Your task to perform on an android device: toggle notifications settings in the gmail app Image 0: 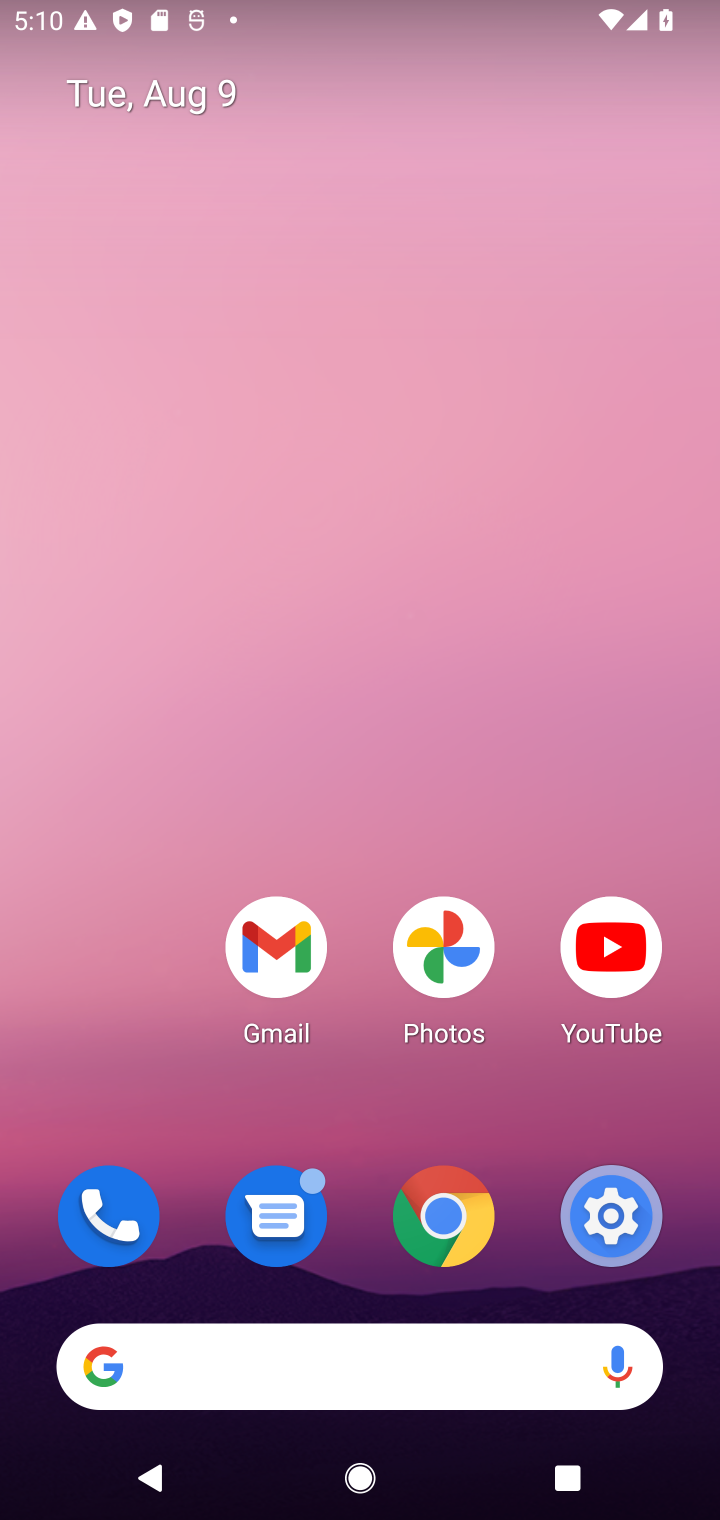
Step 0: drag from (374, 1324) to (232, 696)
Your task to perform on an android device: toggle notifications settings in the gmail app Image 1: 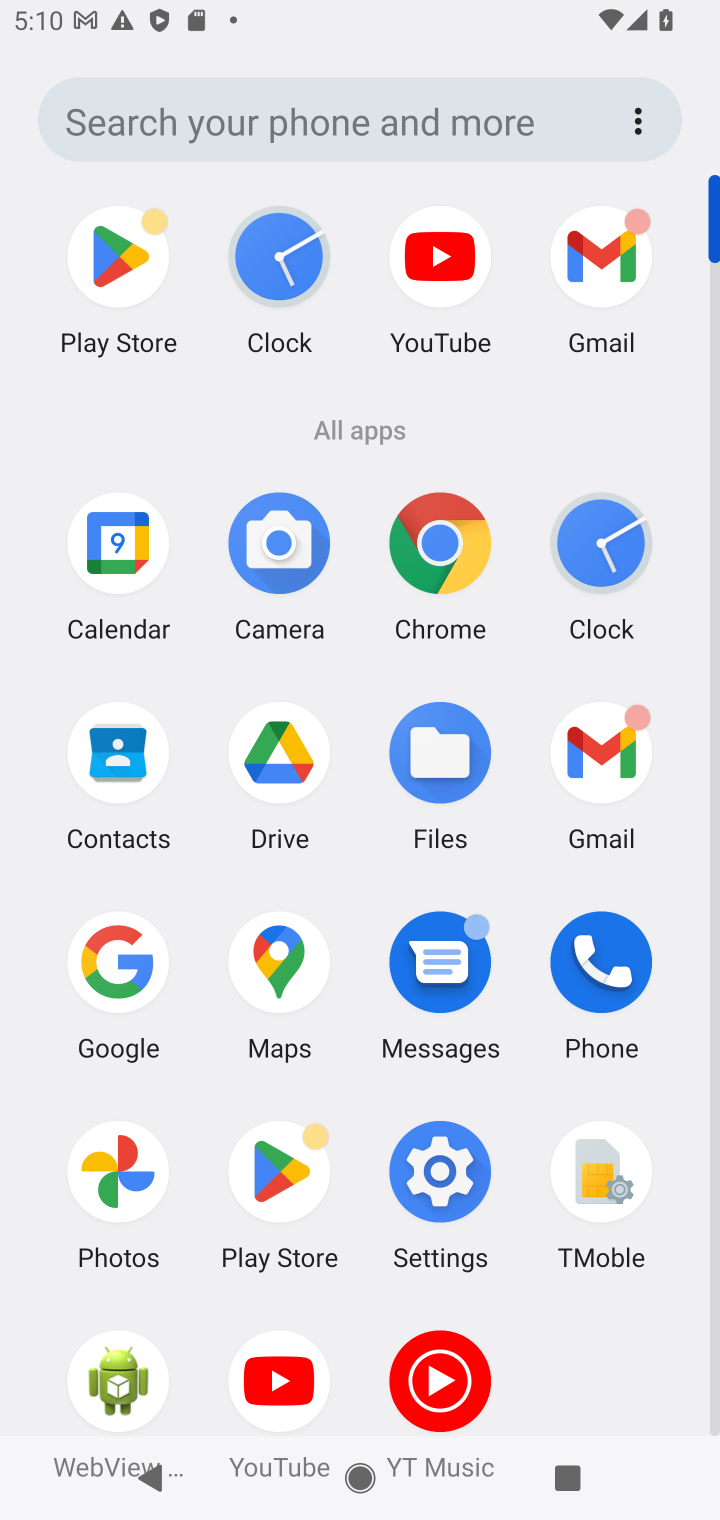
Step 1: click (606, 771)
Your task to perform on an android device: toggle notifications settings in the gmail app Image 2: 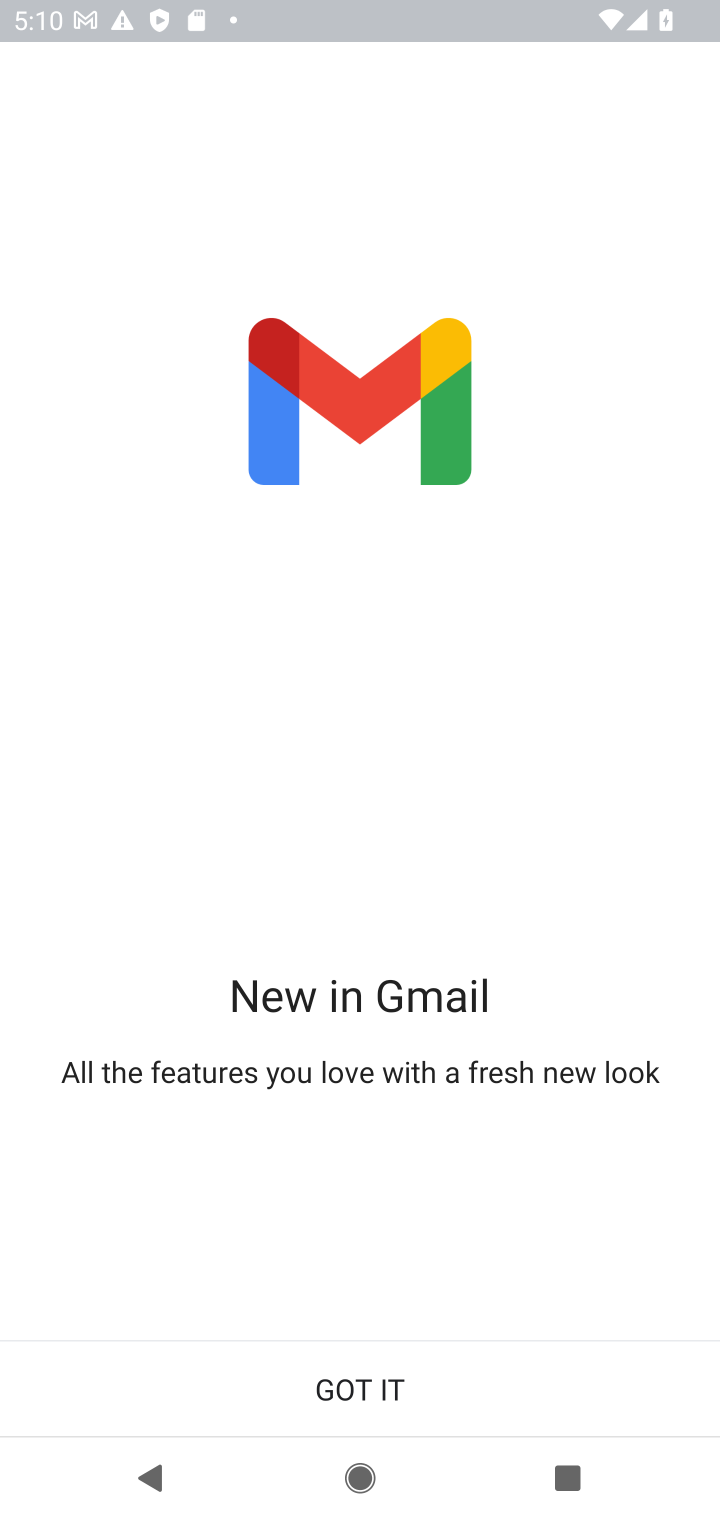
Step 2: click (389, 1386)
Your task to perform on an android device: toggle notifications settings in the gmail app Image 3: 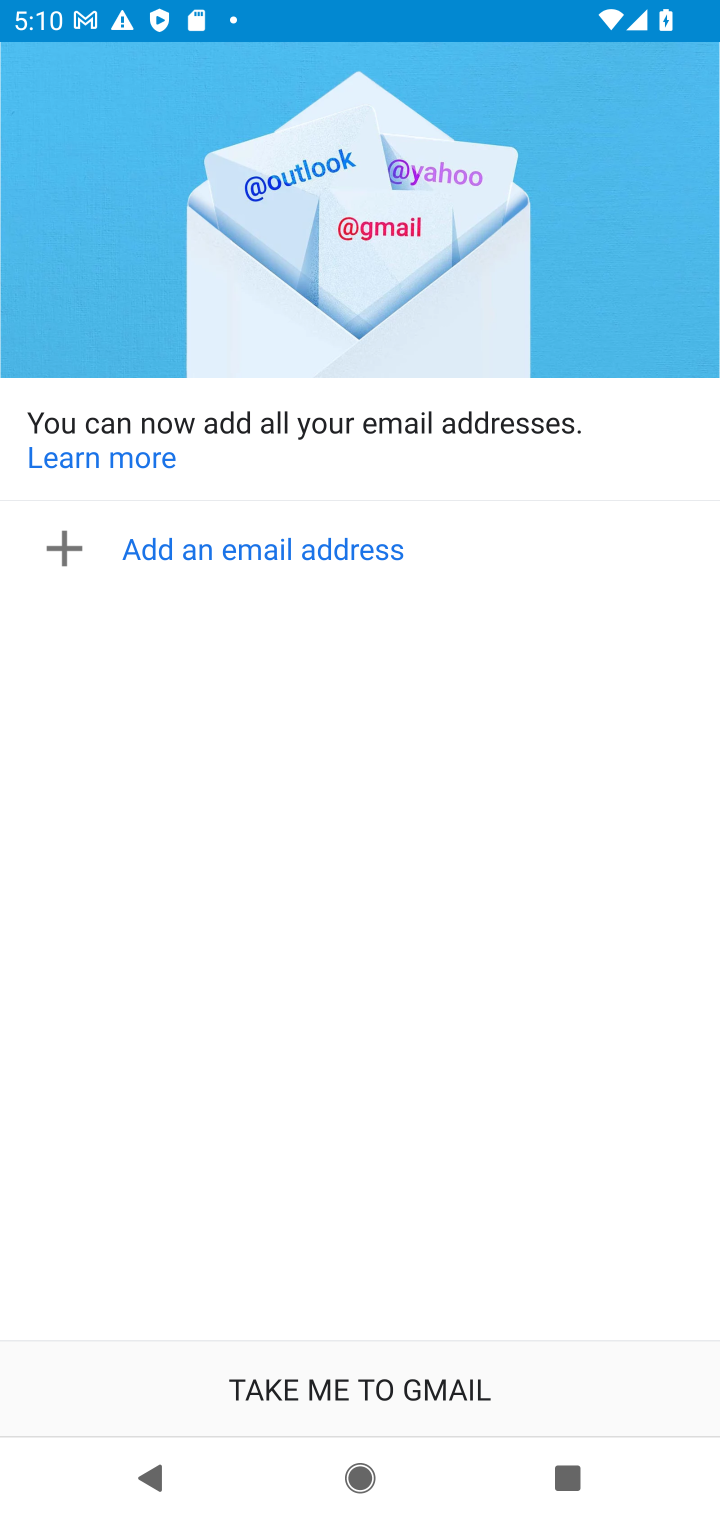
Step 3: click (385, 1391)
Your task to perform on an android device: toggle notifications settings in the gmail app Image 4: 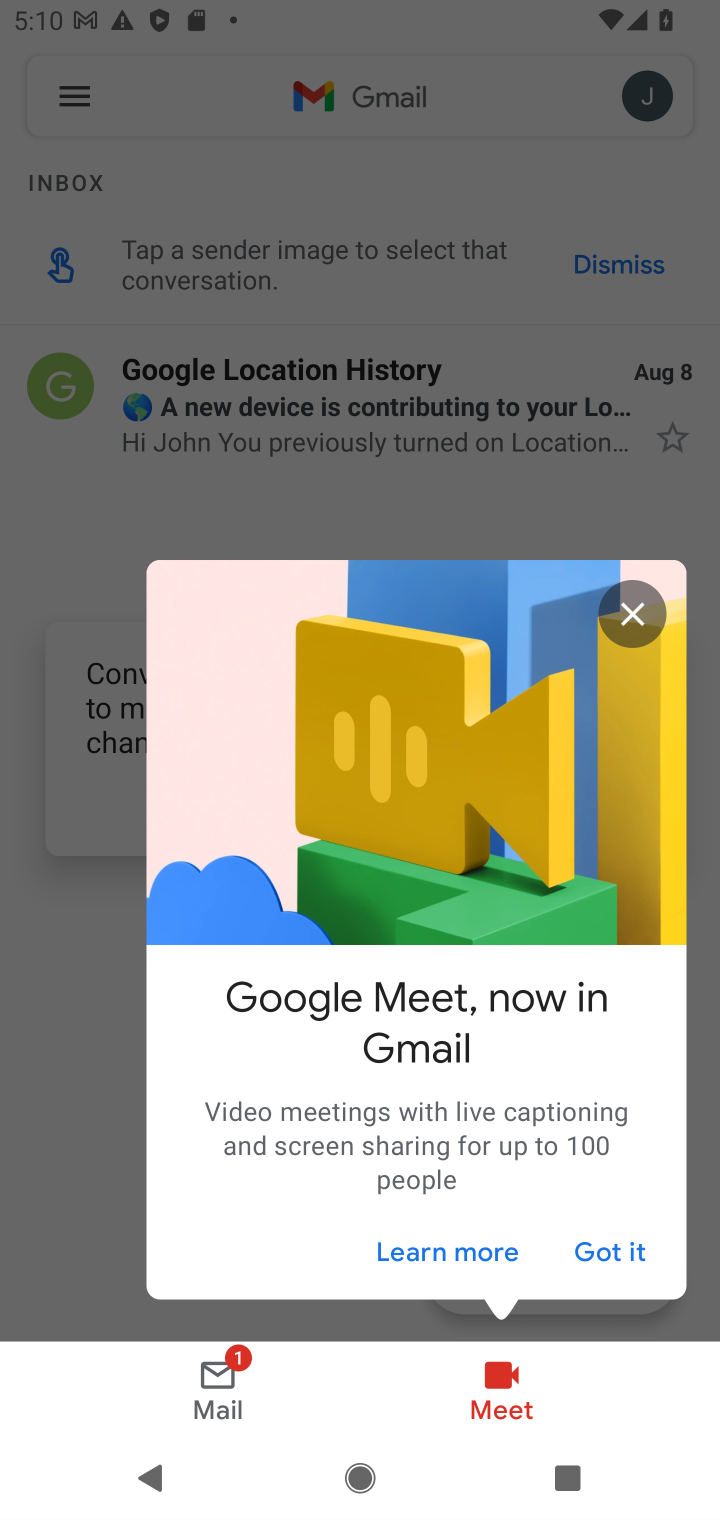
Step 4: click (584, 813)
Your task to perform on an android device: toggle notifications settings in the gmail app Image 5: 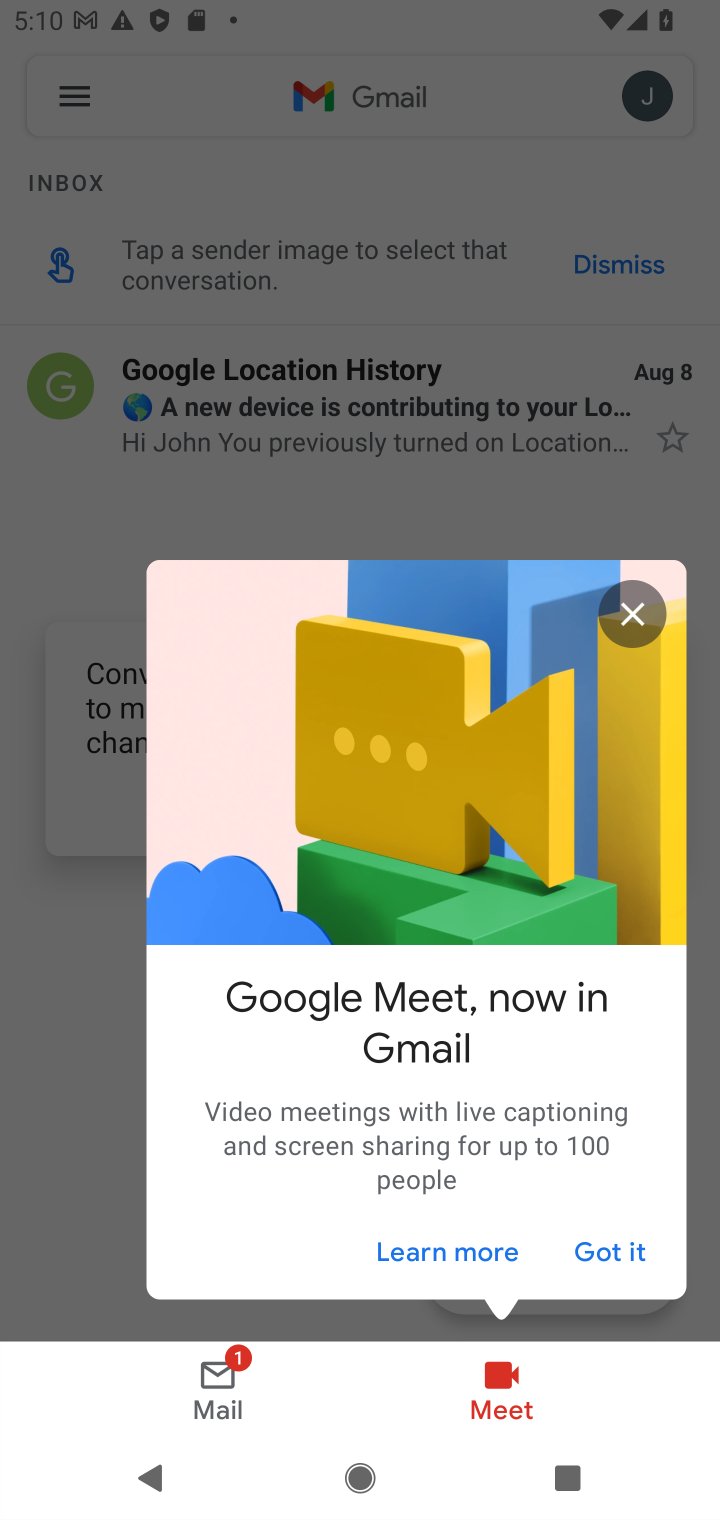
Step 5: click (635, 602)
Your task to perform on an android device: toggle notifications settings in the gmail app Image 6: 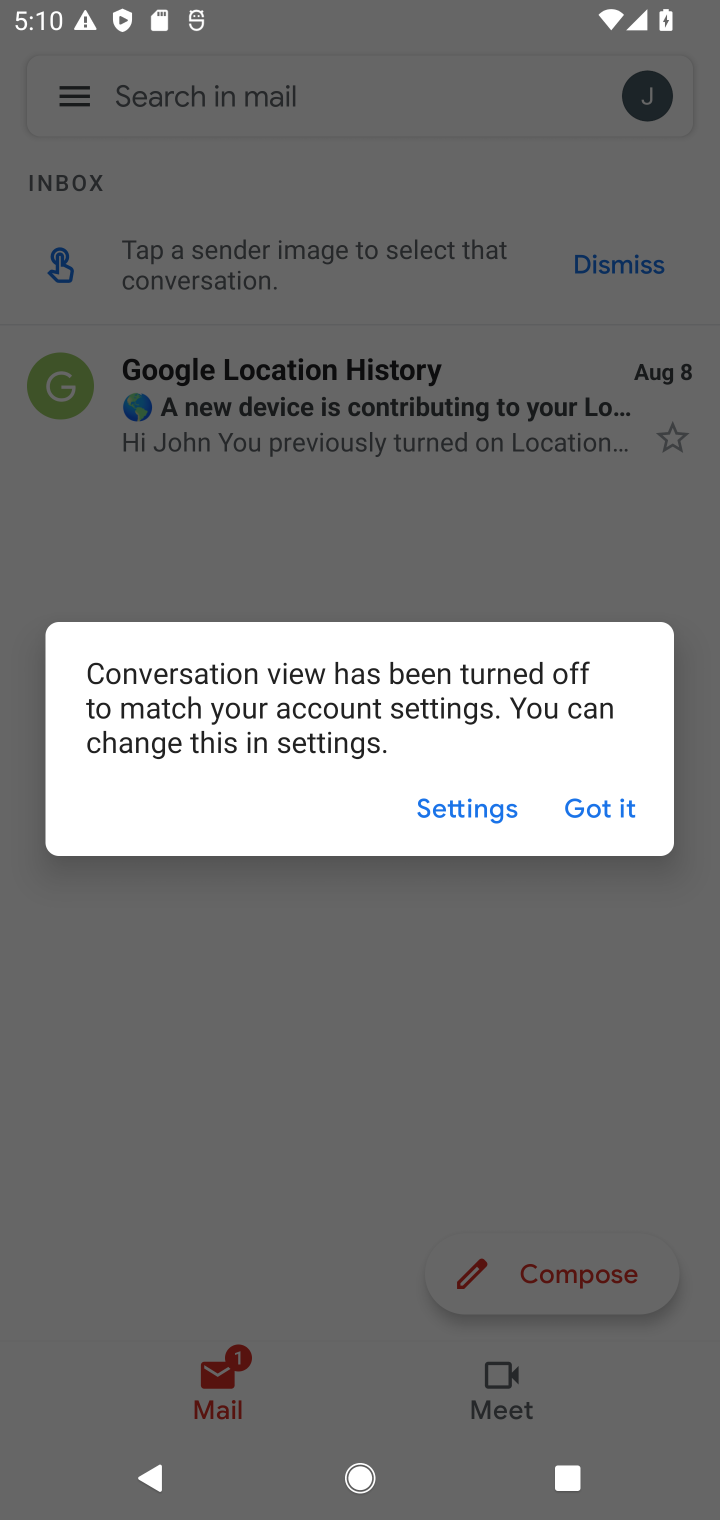
Step 6: click (590, 814)
Your task to perform on an android device: toggle notifications settings in the gmail app Image 7: 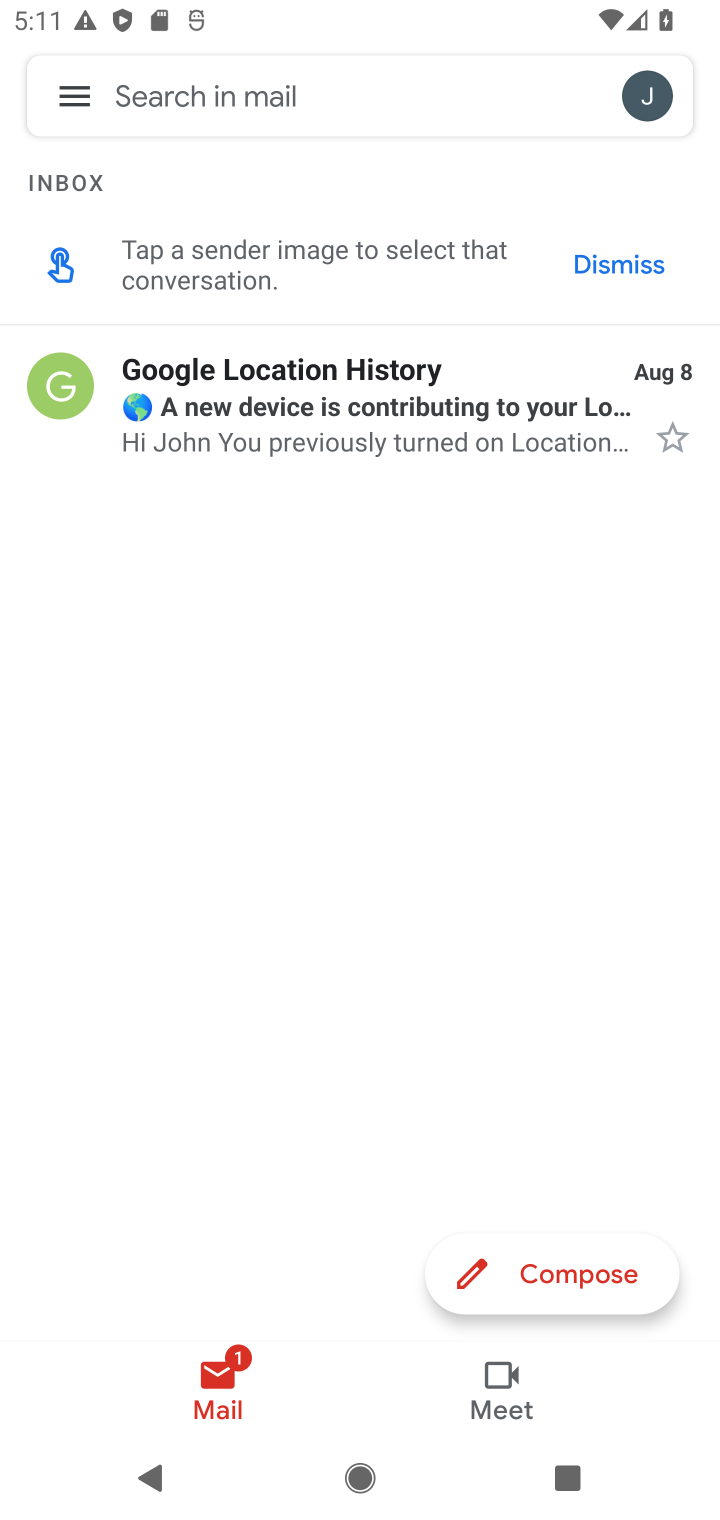
Step 7: click (62, 106)
Your task to perform on an android device: toggle notifications settings in the gmail app Image 8: 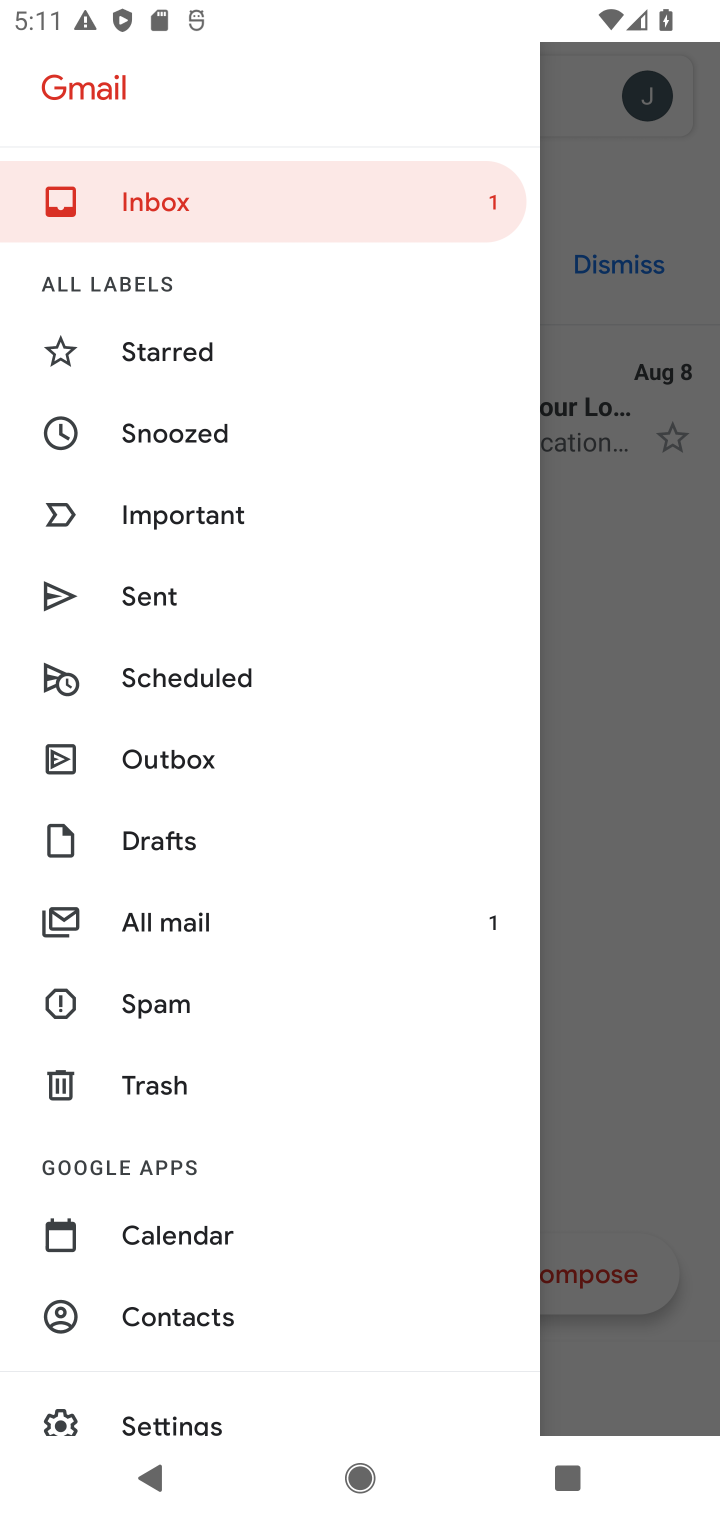
Step 8: click (177, 926)
Your task to perform on an android device: toggle notifications settings in the gmail app Image 9: 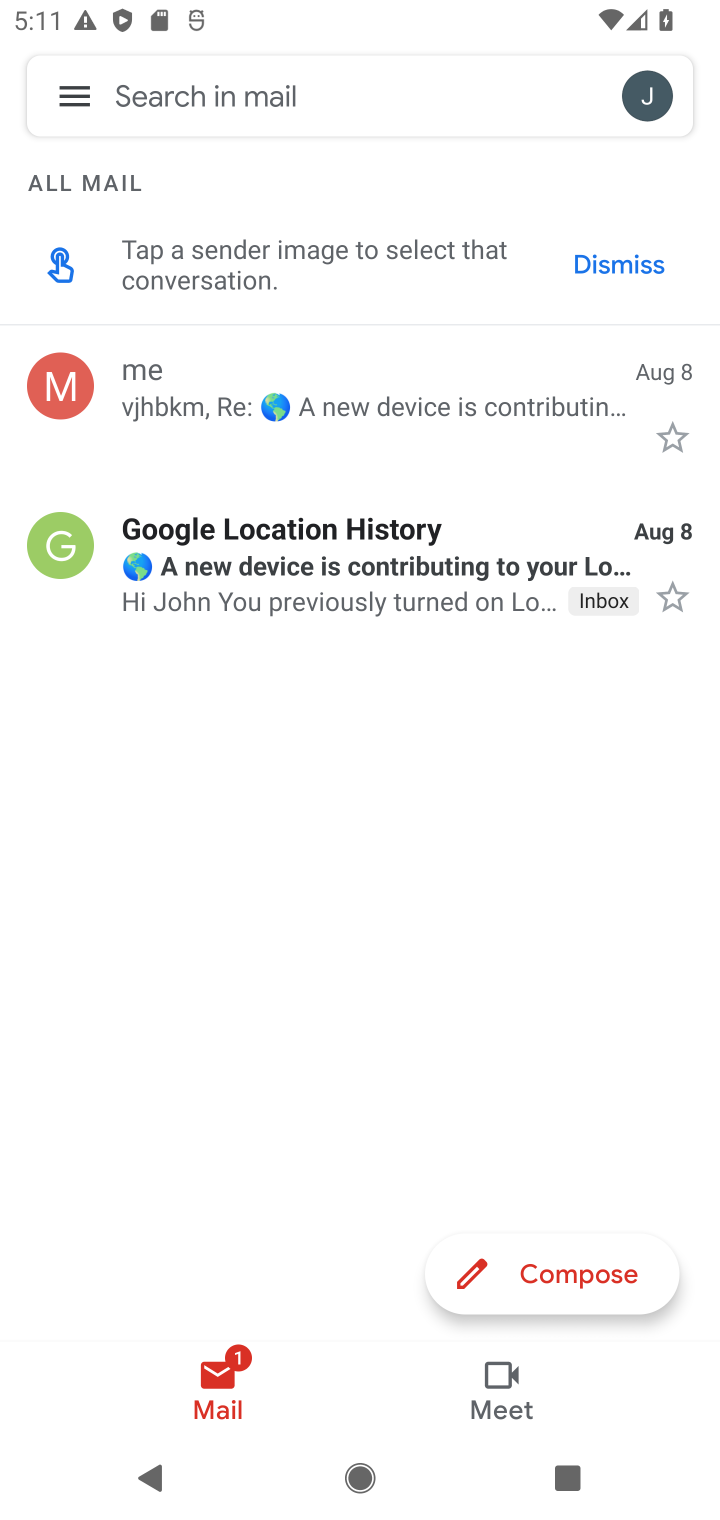
Step 9: click (99, 89)
Your task to perform on an android device: toggle notifications settings in the gmail app Image 10: 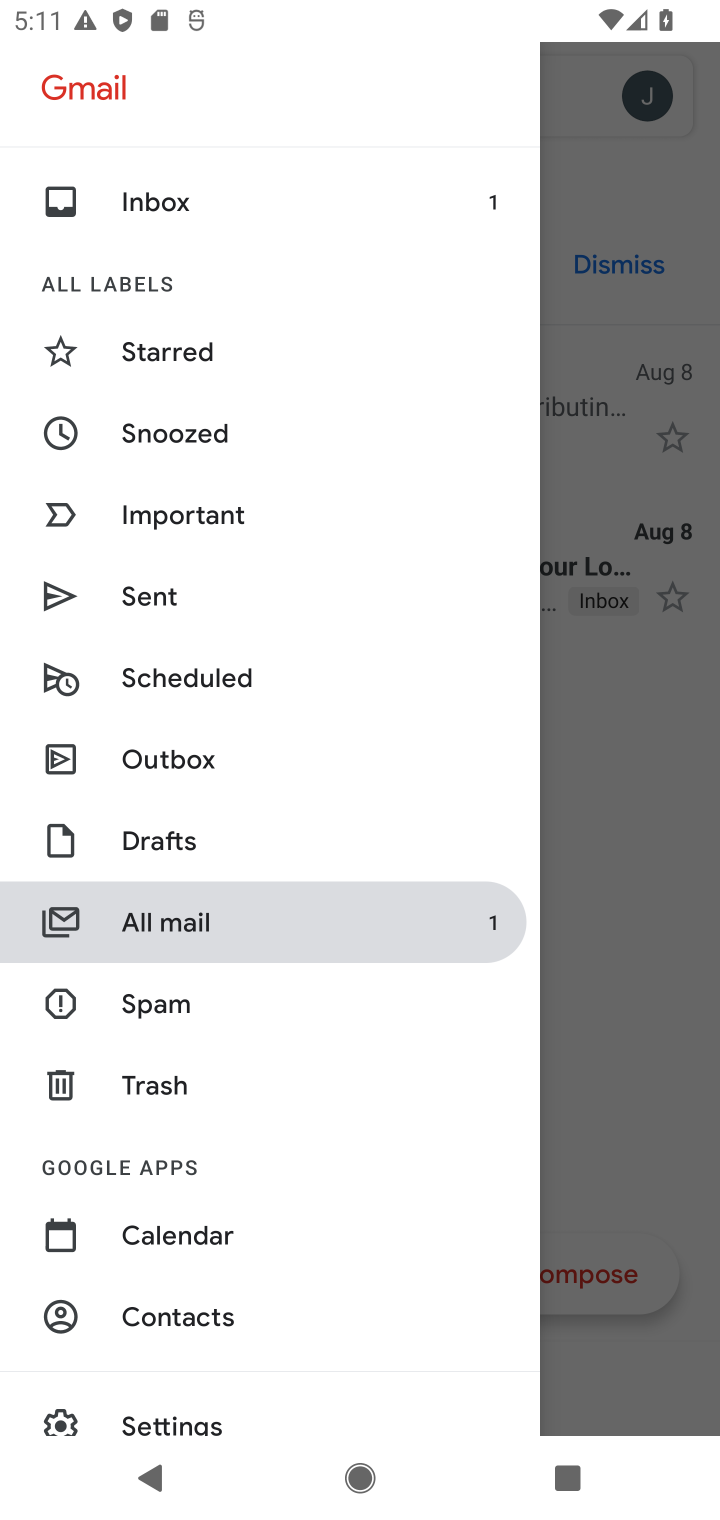
Step 10: click (171, 1431)
Your task to perform on an android device: toggle notifications settings in the gmail app Image 11: 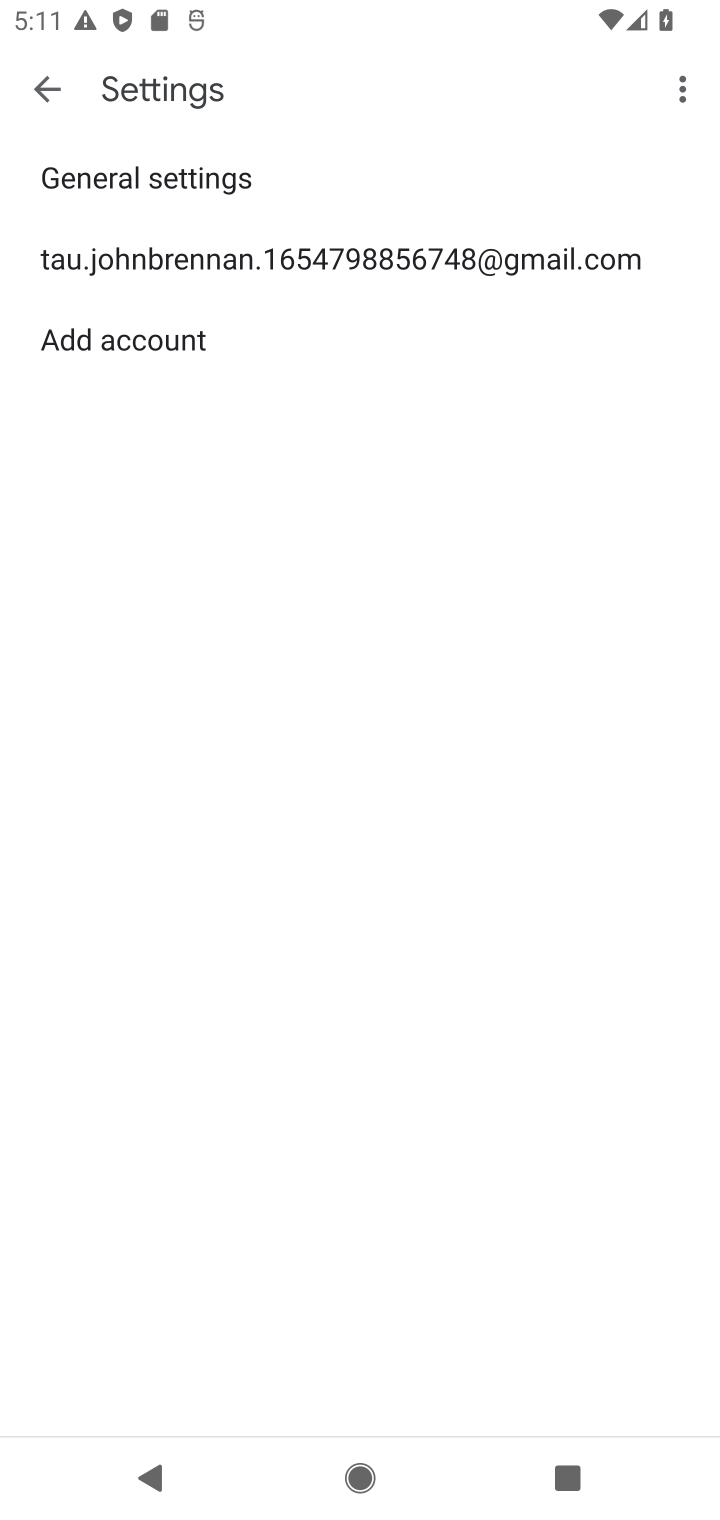
Step 11: click (175, 268)
Your task to perform on an android device: toggle notifications settings in the gmail app Image 12: 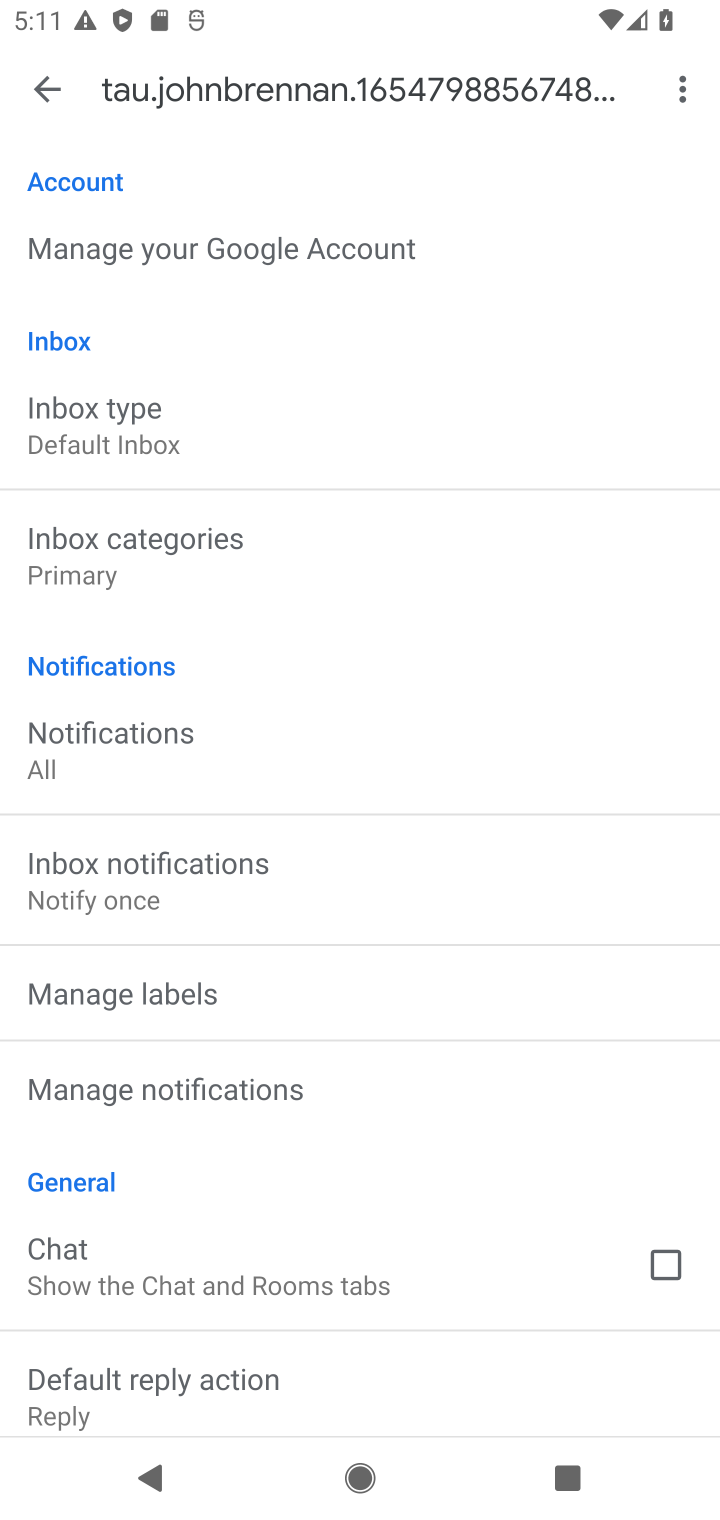
Step 12: drag from (152, 1382) to (152, 619)
Your task to perform on an android device: toggle notifications settings in the gmail app Image 13: 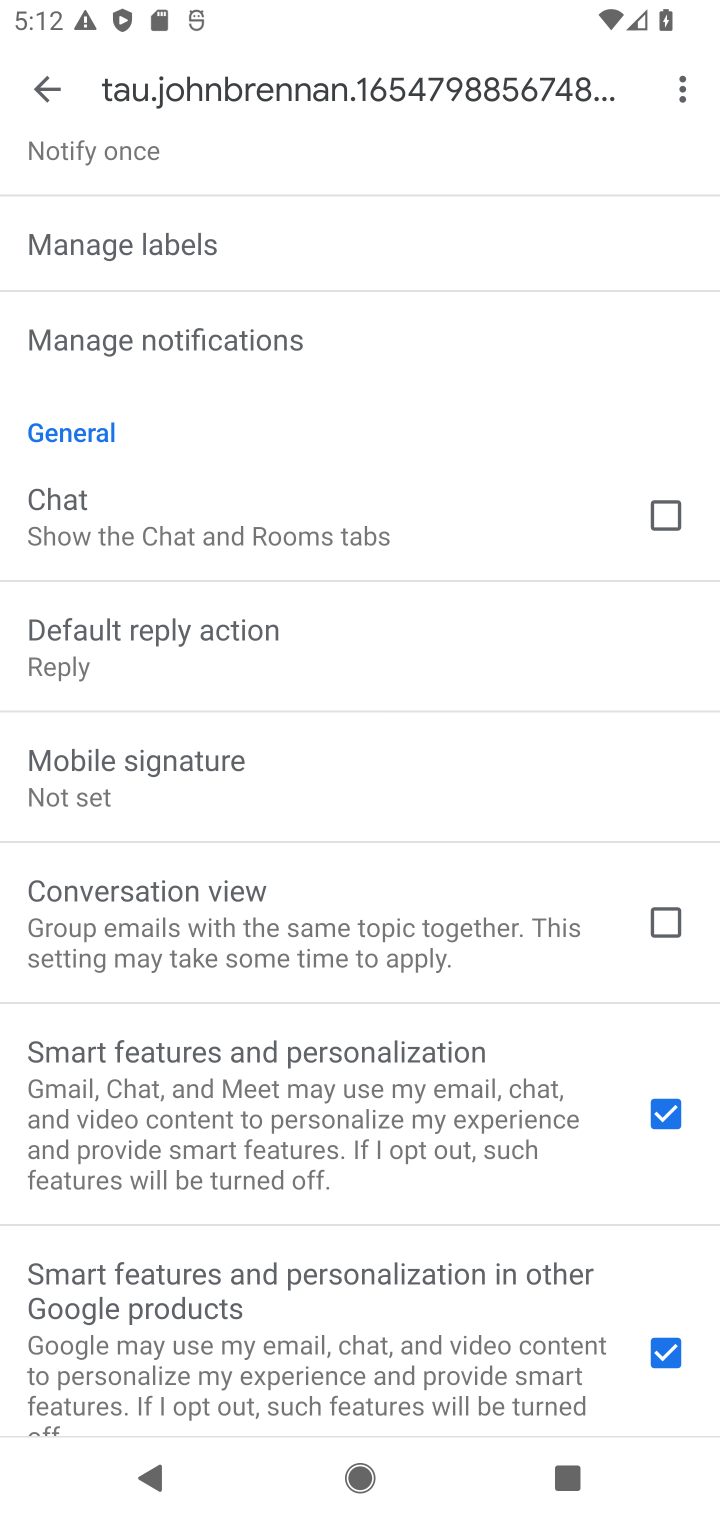
Step 13: drag from (200, 1349) to (200, 580)
Your task to perform on an android device: toggle notifications settings in the gmail app Image 14: 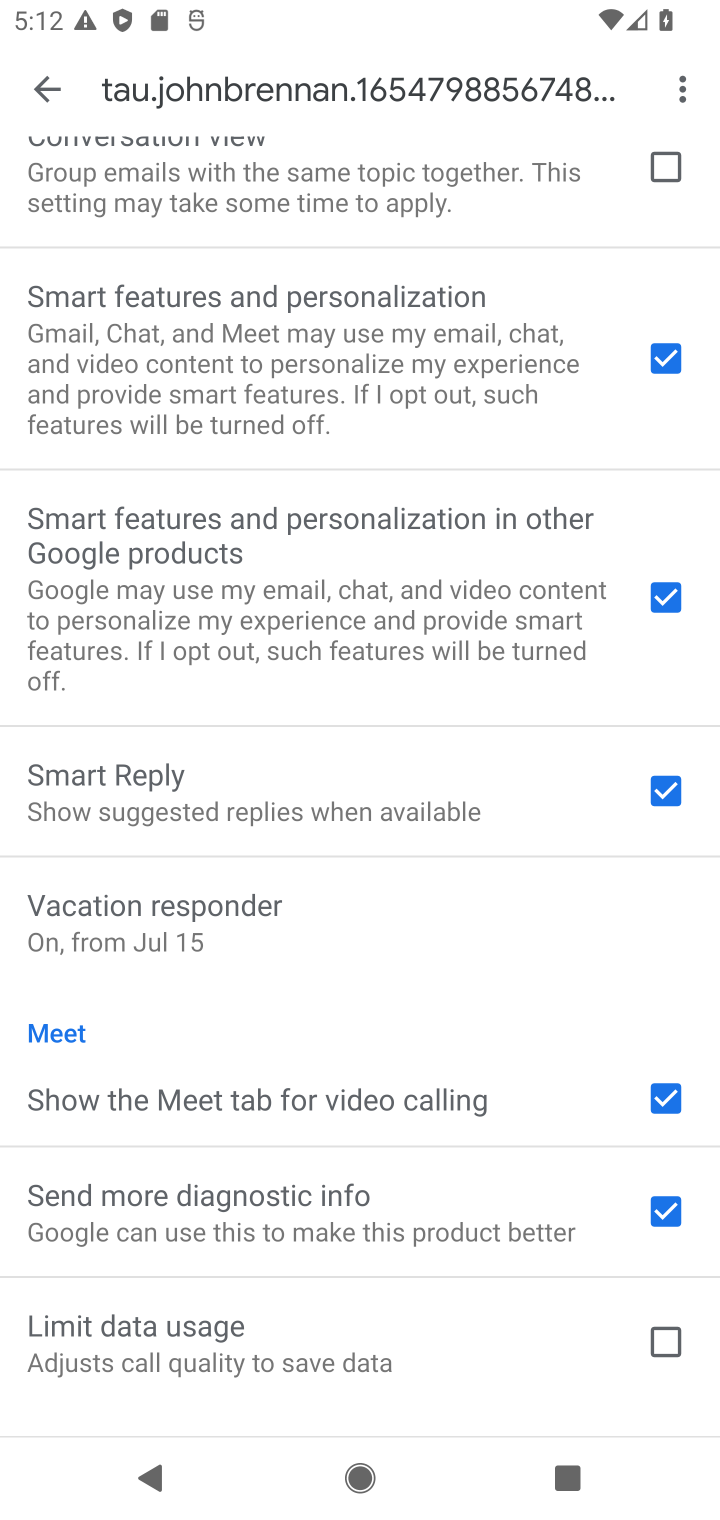
Step 14: drag from (188, 847) to (188, 552)
Your task to perform on an android device: toggle notifications settings in the gmail app Image 15: 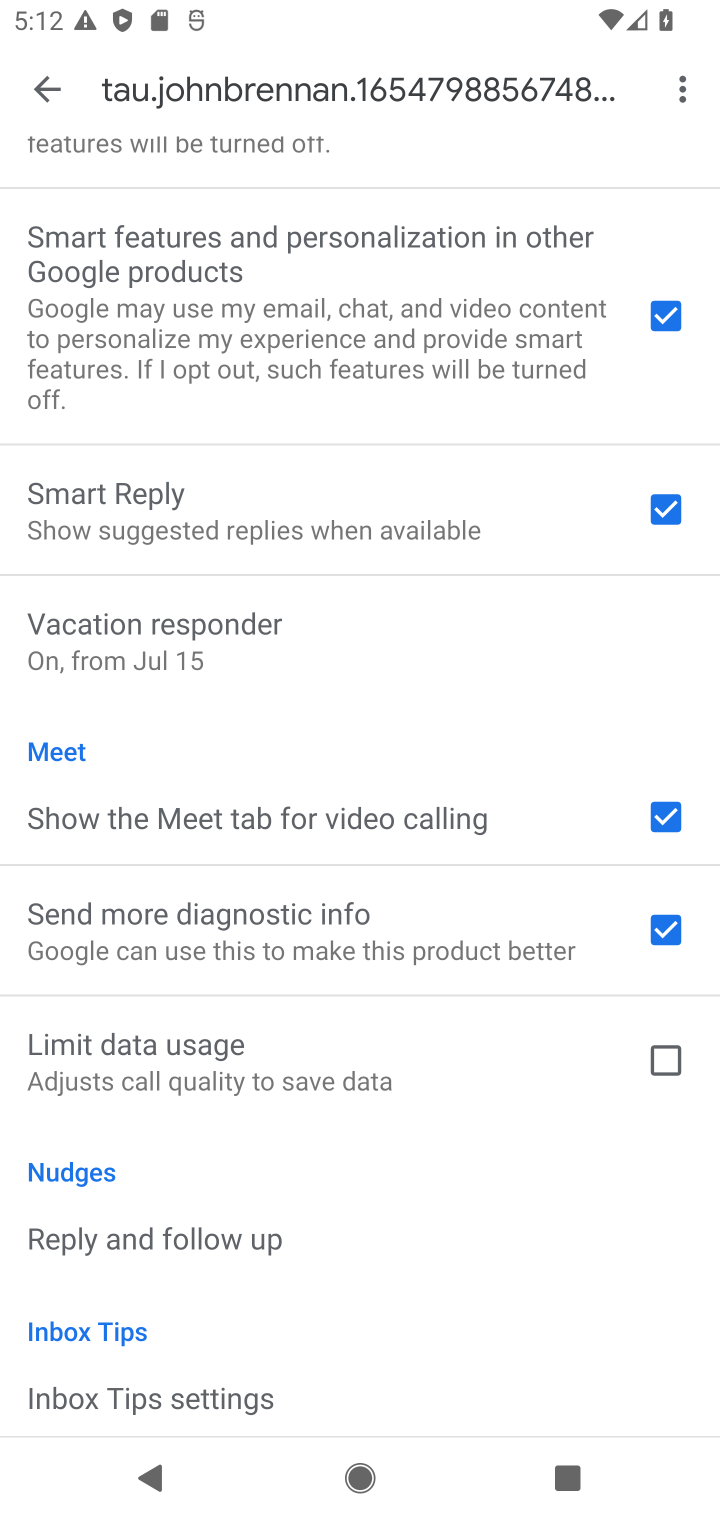
Step 15: drag from (189, 224) to (177, 1220)
Your task to perform on an android device: toggle notifications settings in the gmail app Image 16: 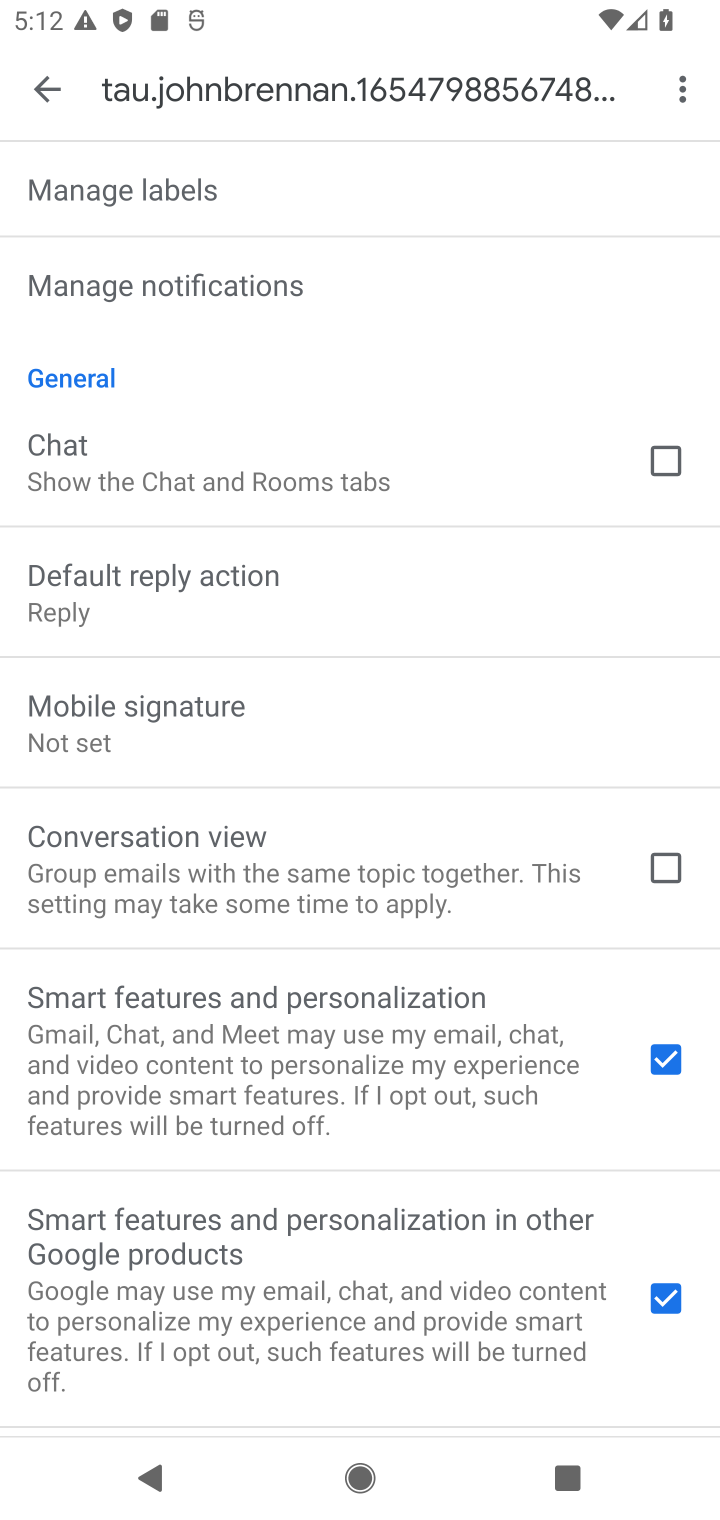
Step 16: drag from (93, 319) to (110, 1110)
Your task to perform on an android device: toggle notifications settings in the gmail app Image 17: 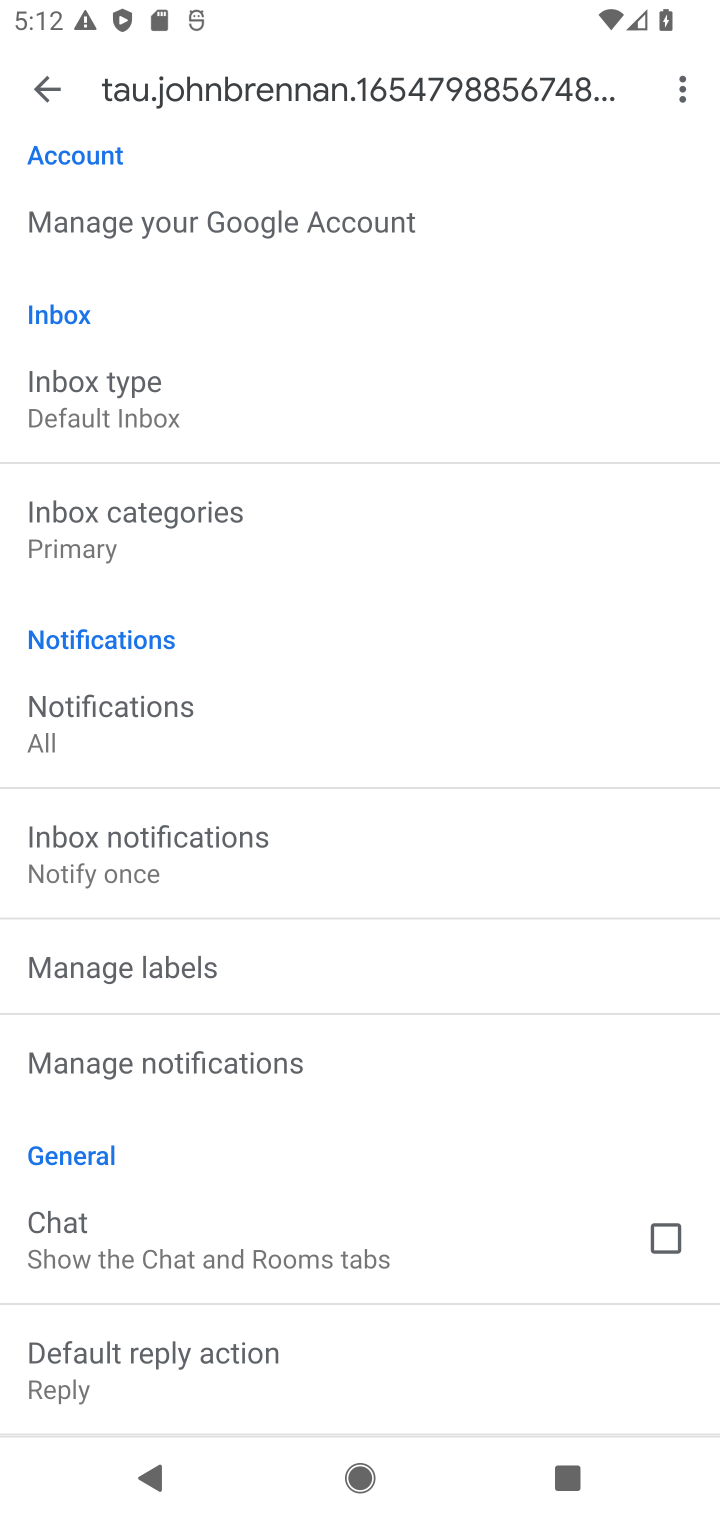
Step 17: click (138, 1062)
Your task to perform on an android device: toggle notifications settings in the gmail app Image 18: 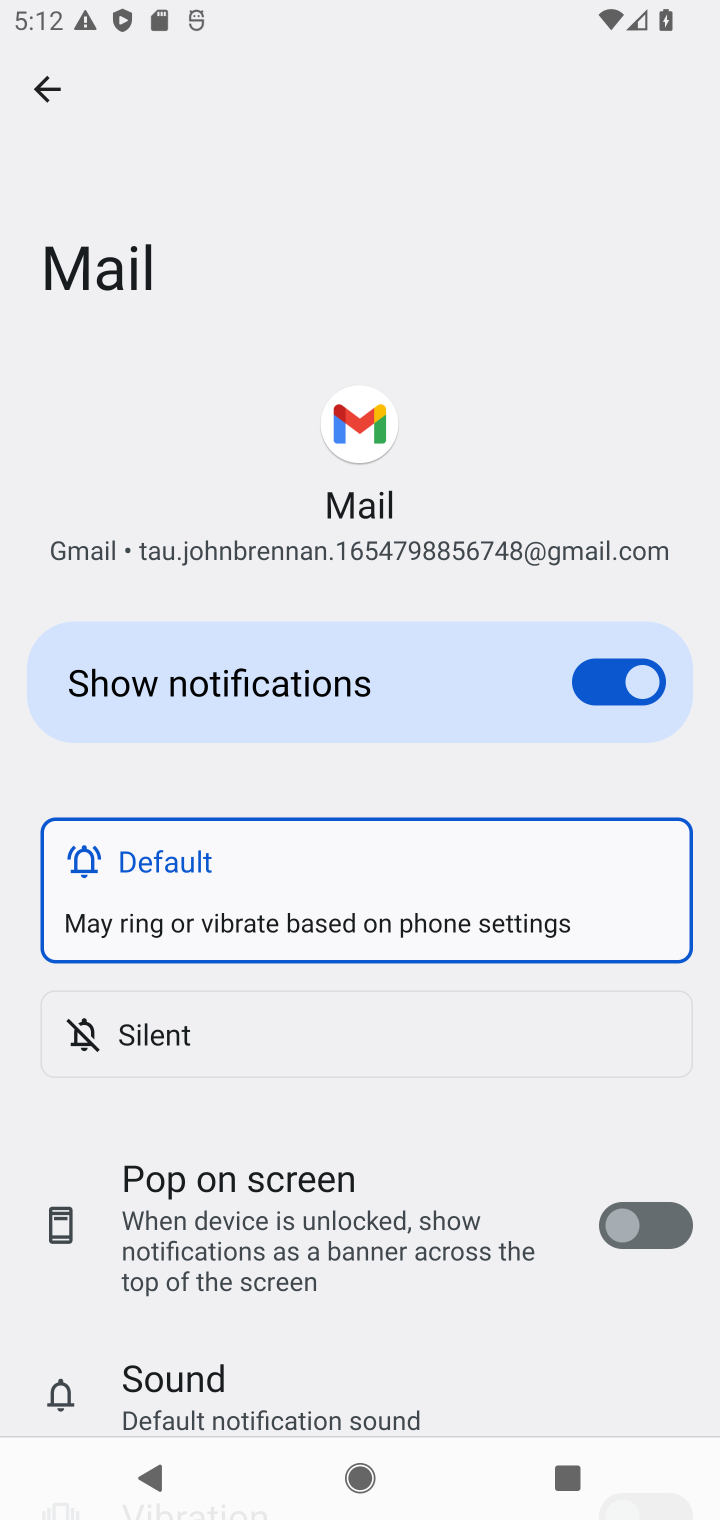
Step 18: click (600, 678)
Your task to perform on an android device: toggle notifications settings in the gmail app Image 19: 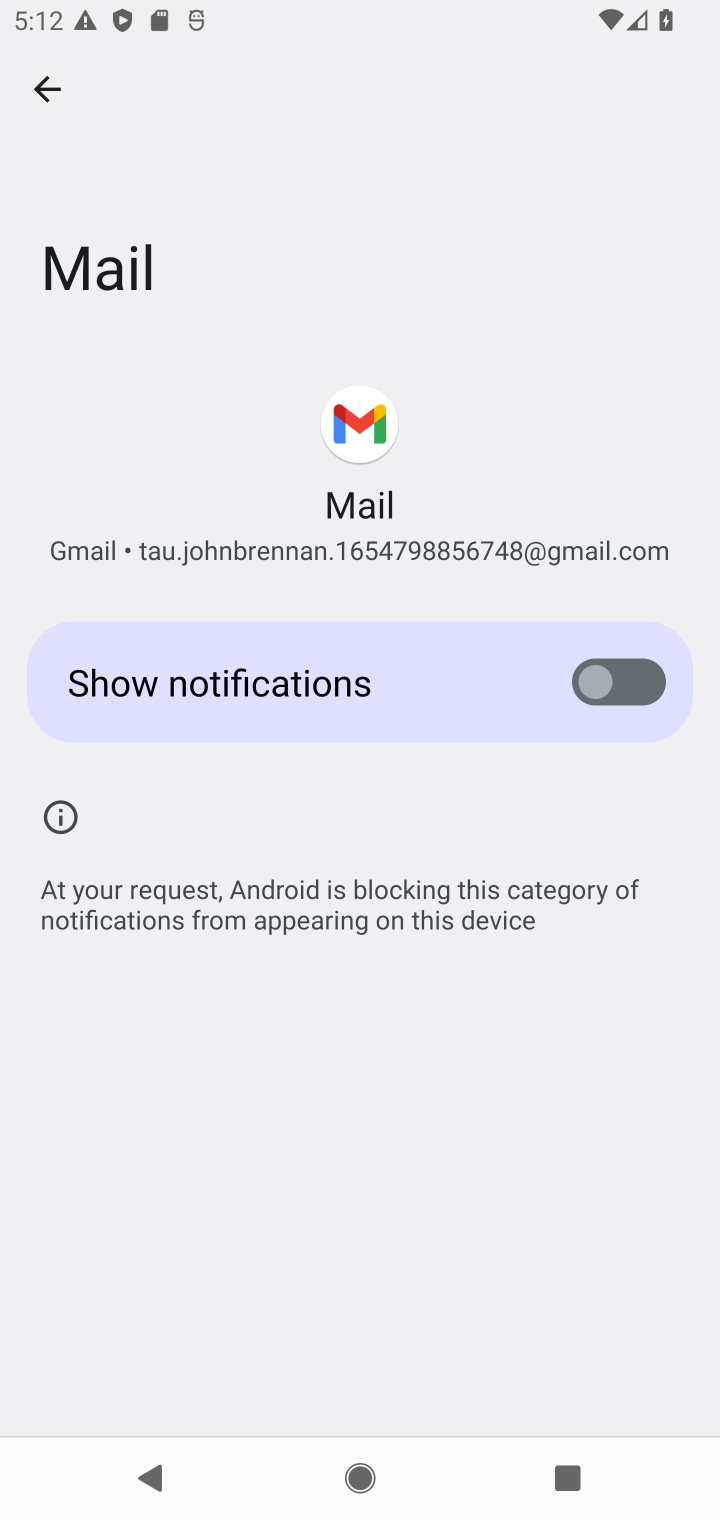
Step 19: task complete